Your task to perform on an android device: Open sound settings Image 0: 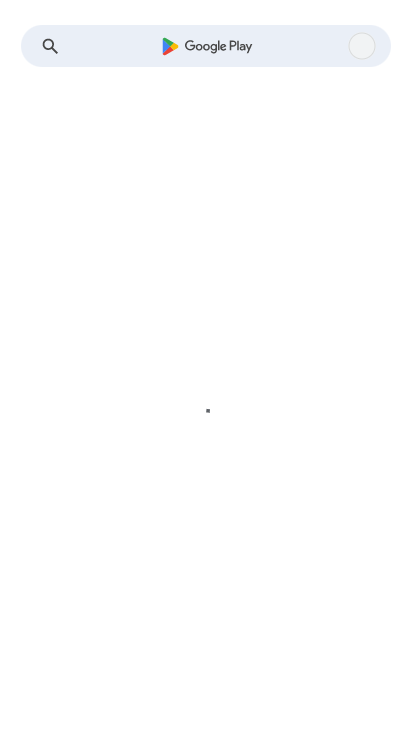
Step 0: press home button
Your task to perform on an android device: Open sound settings Image 1: 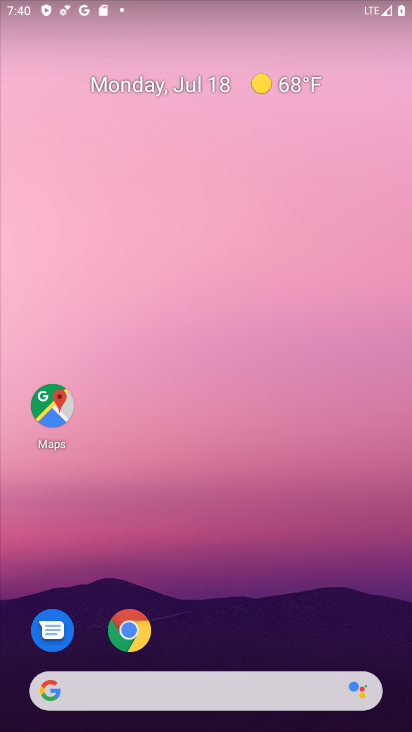
Step 1: drag from (284, 662) to (288, 2)
Your task to perform on an android device: Open sound settings Image 2: 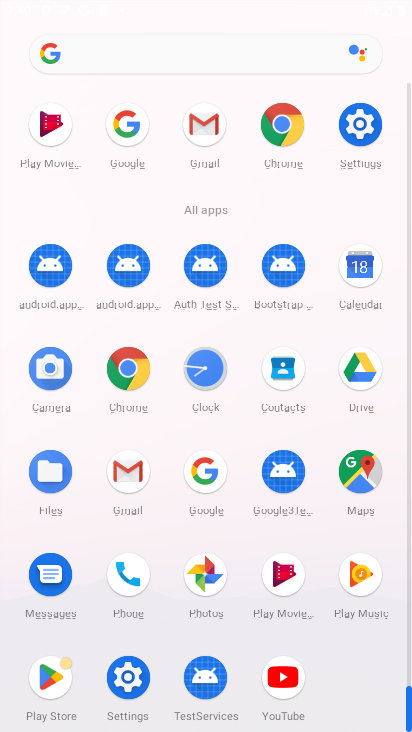
Step 2: click (366, 148)
Your task to perform on an android device: Open sound settings Image 3: 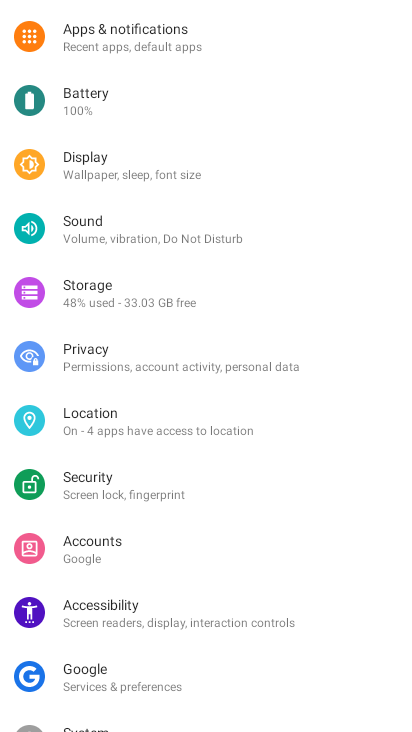
Step 3: click (163, 240)
Your task to perform on an android device: Open sound settings Image 4: 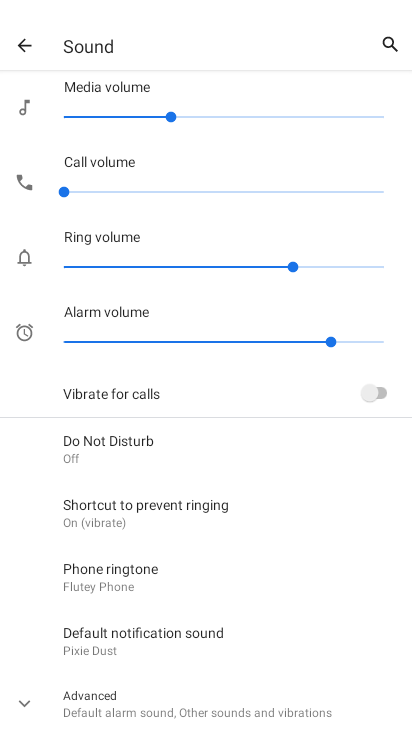
Step 4: task complete